Your task to perform on an android device: Open display settings Image 0: 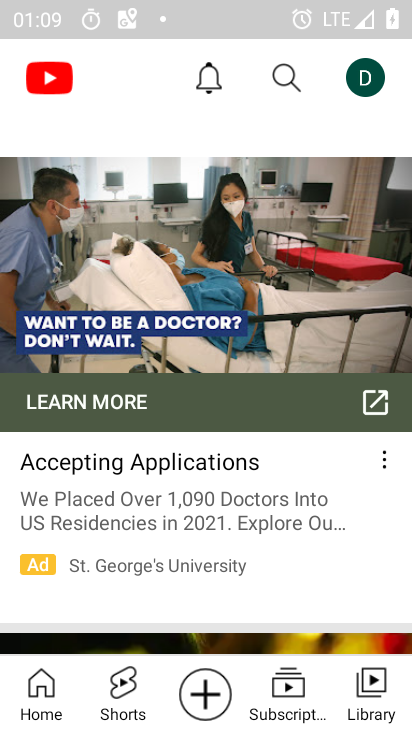
Step 0: press home button
Your task to perform on an android device: Open display settings Image 1: 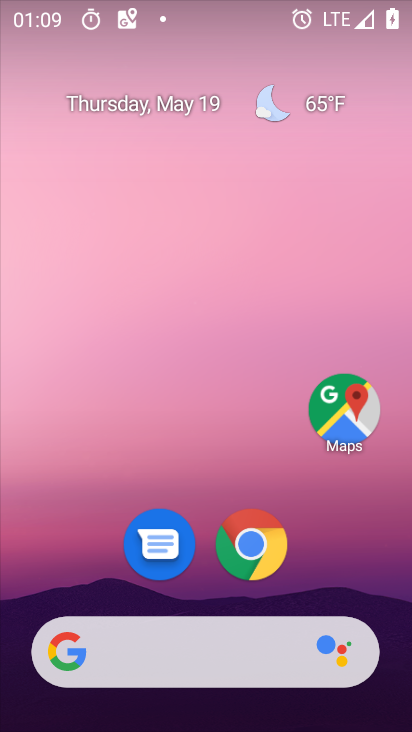
Step 1: drag from (354, 583) to (398, 165)
Your task to perform on an android device: Open display settings Image 2: 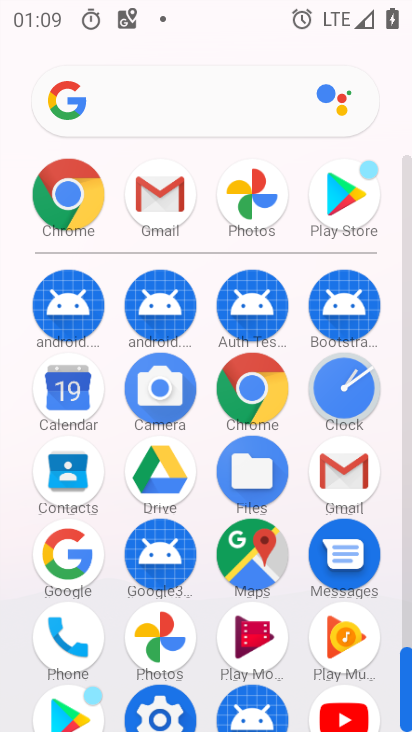
Step 2: drag from (211, 606) to (207, 395)
Your task to perform on an android device: Open display settings Image 3: 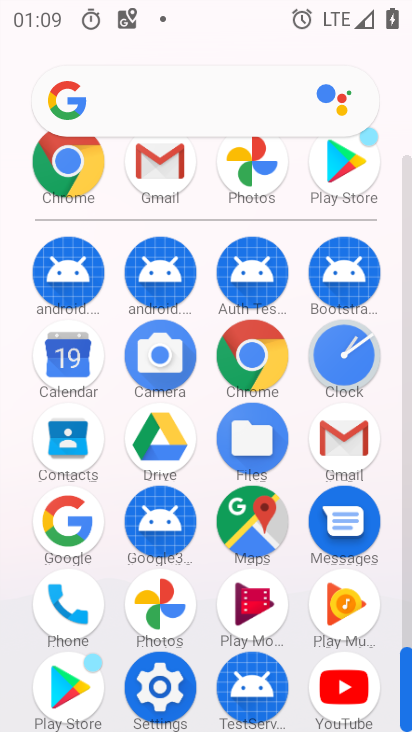
Step 3: click (157, 681)
Your task to perform on an android device: Open display settings Image 4: 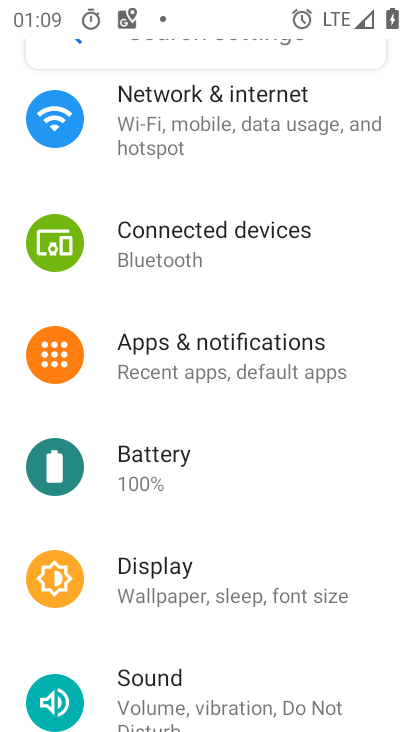
Step 4: click (300, 605)
Your task to perform on an android device: Open display settings Image 5: 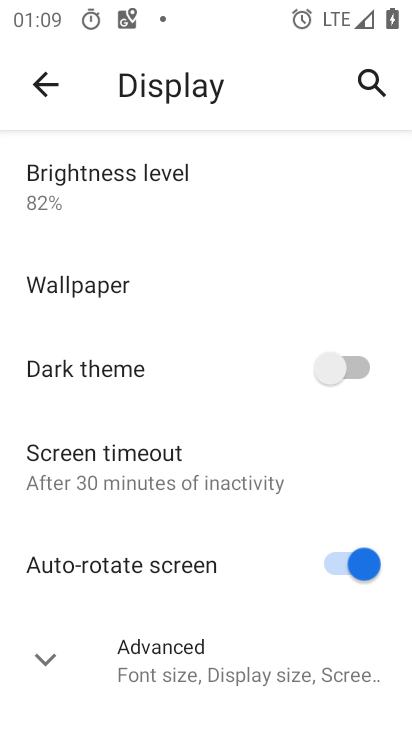
Step 5: click (236, 672)
Your task to perform on an android device: Open display settings Image 6: 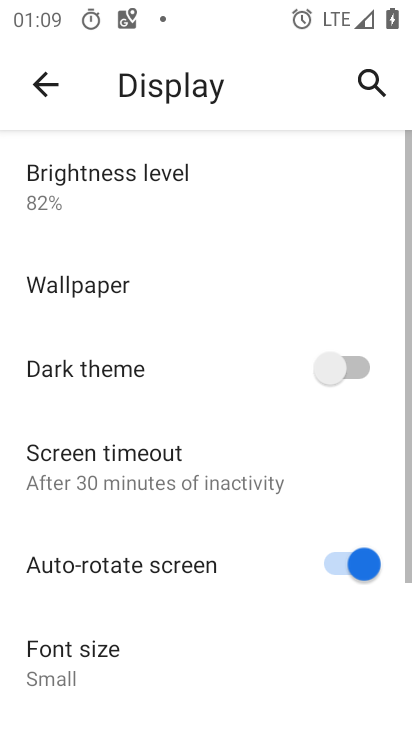
Step 6: task complete